Your task to perform on an android device: Open Amazon Image 0: 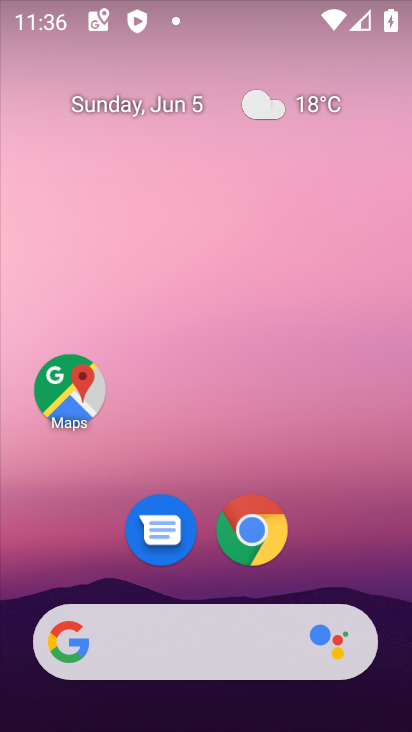
Step 0: drag from (335, 486) to (360, 15)
Your task to perform on an android device: Open Amazon Image 1: 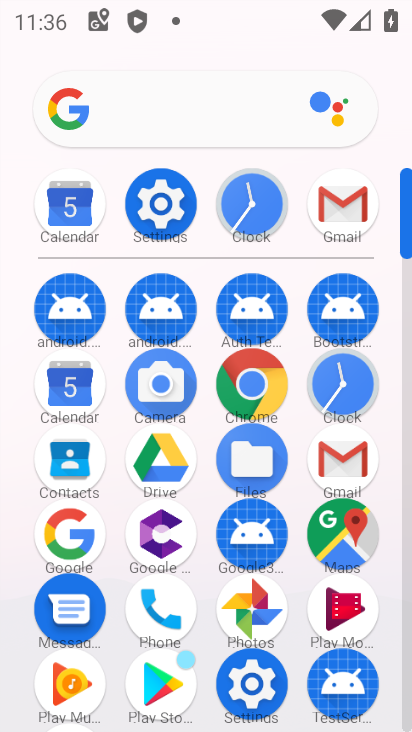
Step 1: click (261, 372)
Your task to perform on an android device: Open Amazon Image 2: 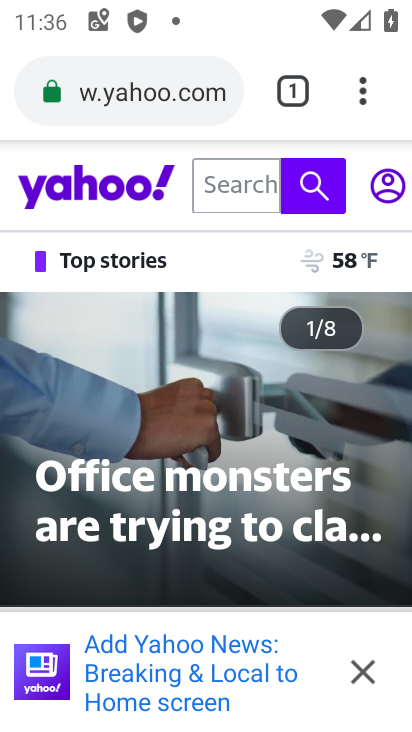
Step 2: click (156, 68)
Your task to perform on an android device: Open Amazon Image 3: 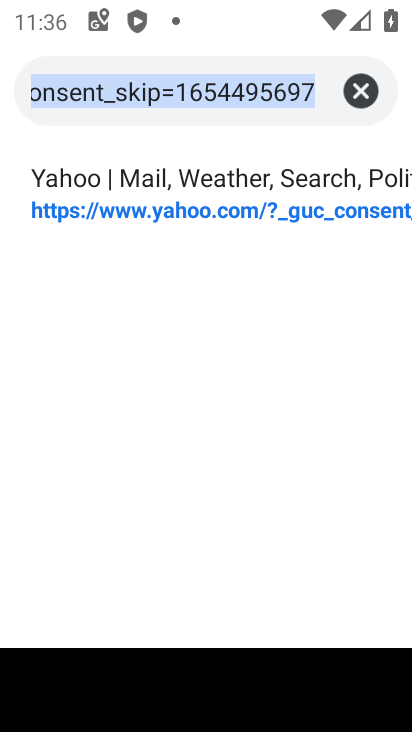
Step 3: click (365, 103)
Your task to perform on an android device: Open Amazon Image 4: 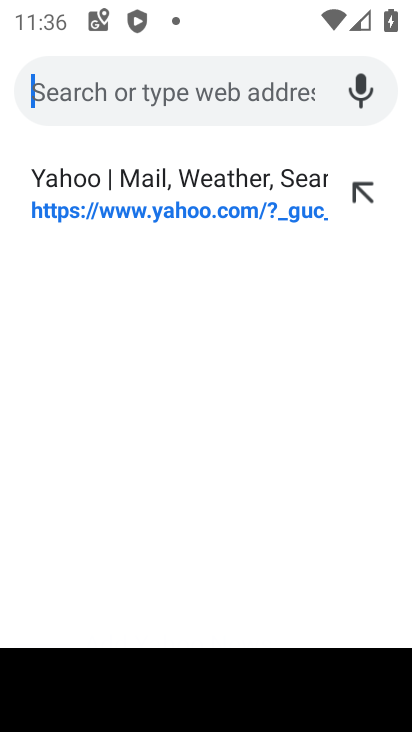
Step 4: type "amazon"
Your task to perform on an android device: Open Amazon Image 5: 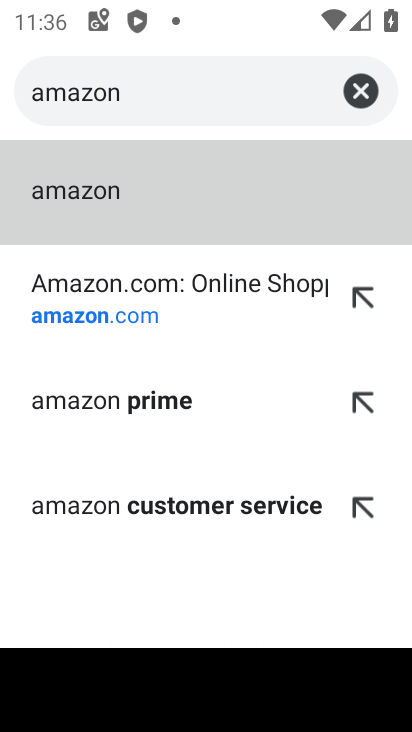
Step 5: click (97, 301)
Your task to perform on an android device: Open Amazon Image 6: 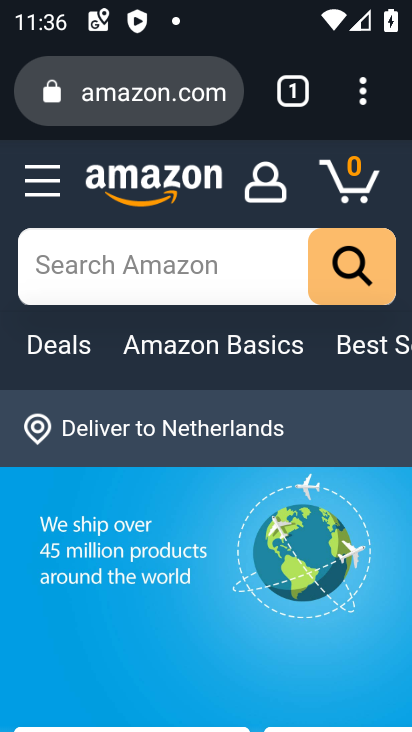
Step 6: task complete